Your task to perform on an android device: Open Chrome and go to the settings page Image 0: 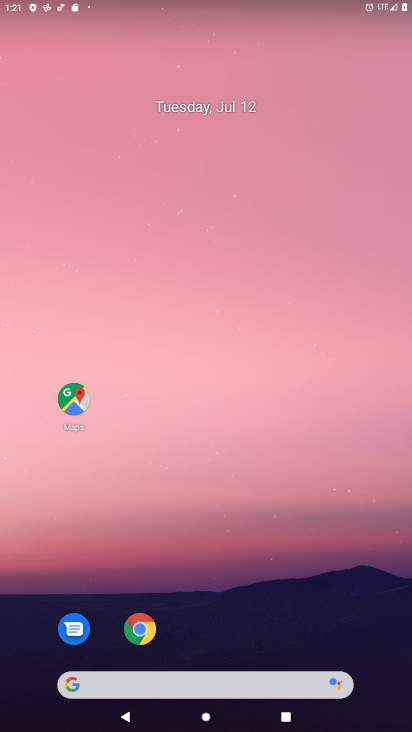
Step 0: drag from (189, 693) to (168, 92)
Your task to perform on an android device: Open Chrome and go to the settings page Image 1: 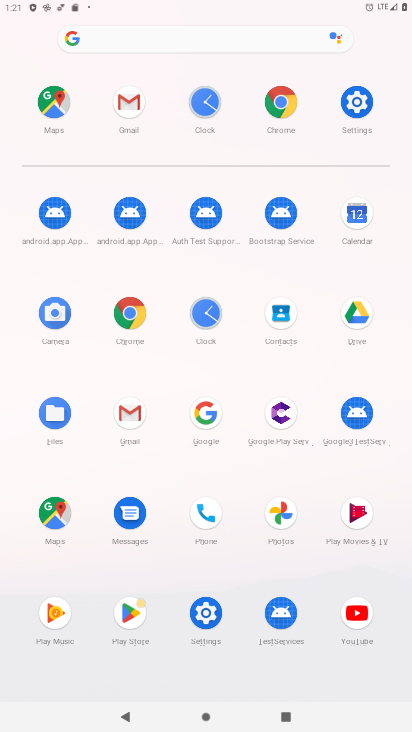
Step 1: click (128, 317)
Your task to perform on an android device: Open Chrome and go to the settings page Image 2: 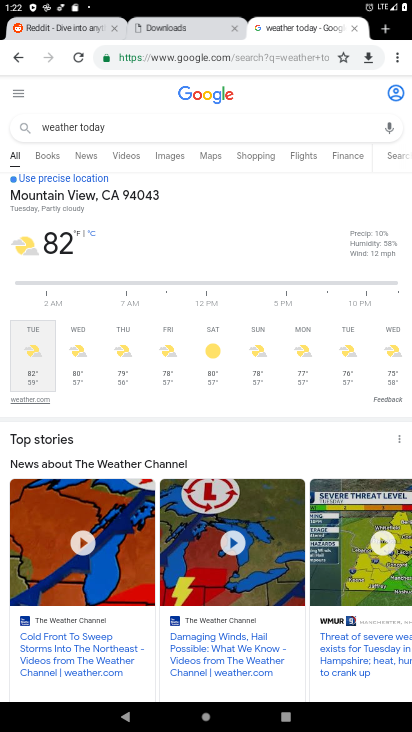
Step 2: task complete